Your task to perform on an android device: Open accessibility settings Image 0: 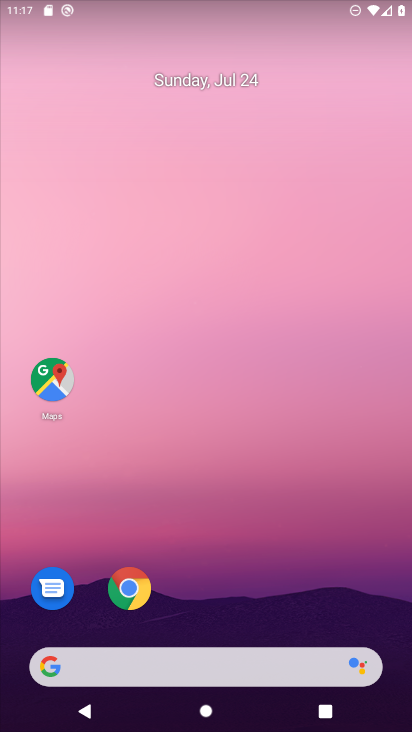
Step 0: drag from (238, 632) to (237, 26)
Your task to perform on an android device: Open accessibility settings Image 1: 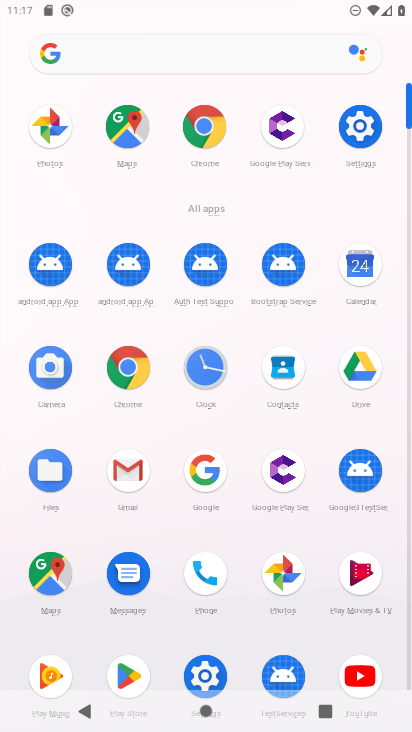
Step 1: click (381, 112)
Your task to perform on an android device: Open accessibility settings Image 2: 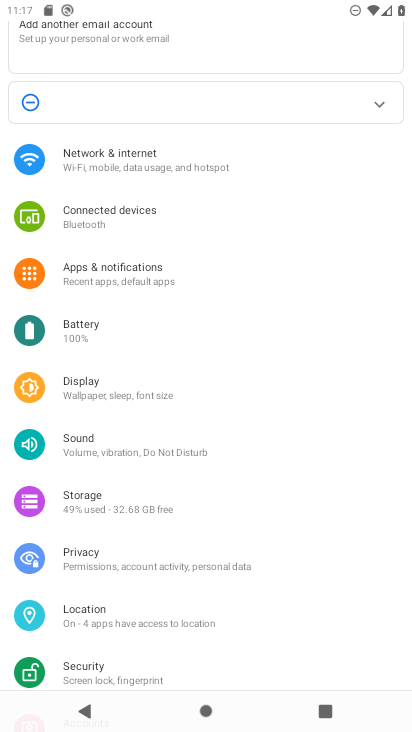
Step 2: drag from (117, 645) to (146, 73)
Your task to perform on an android device: Open accessibility settings Image 3: 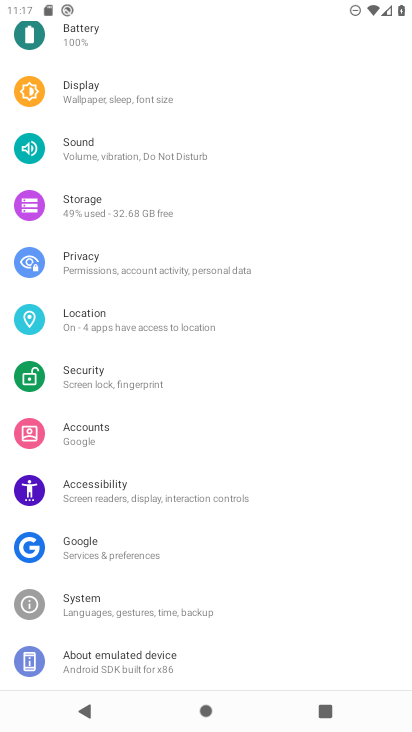
Step 3: click (195, 483)
Your task to perform on an android device: Open accessibility settings Image 4: 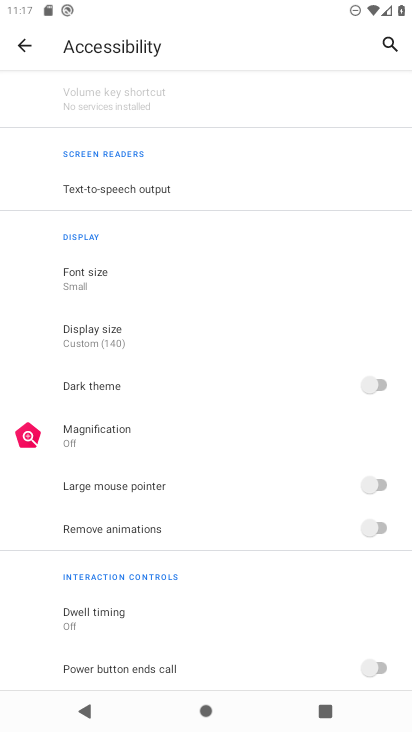
Step 4: task complete